Your task to perform on an android device: check out phone information Image 0: 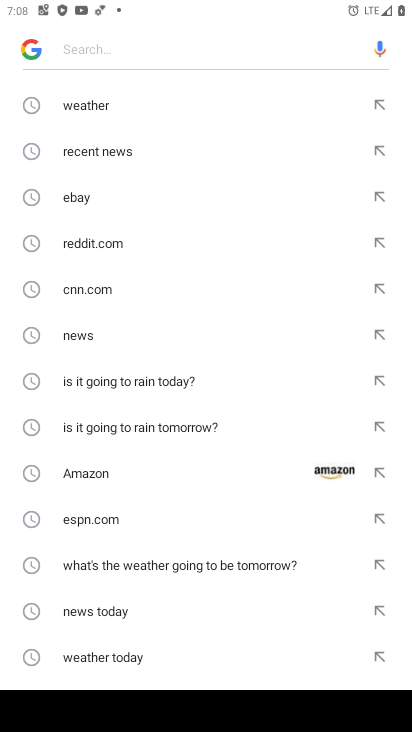
Step 0: press home button
Your task to perform on an android device: check out phone information Image 1: 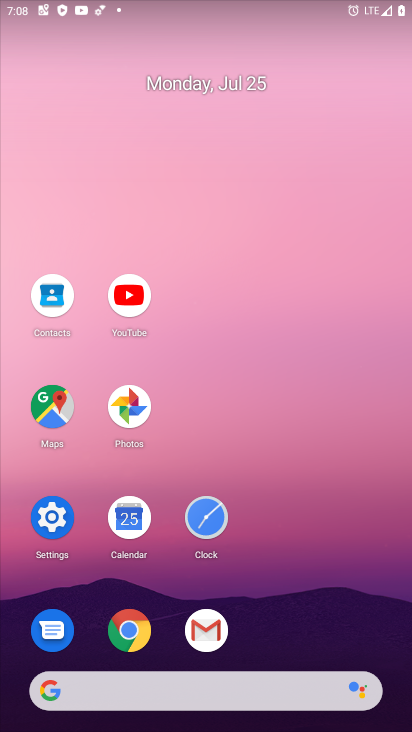
Step 1: click (44, 504)
Your task to perform on an android device: check out phone information Image 2: 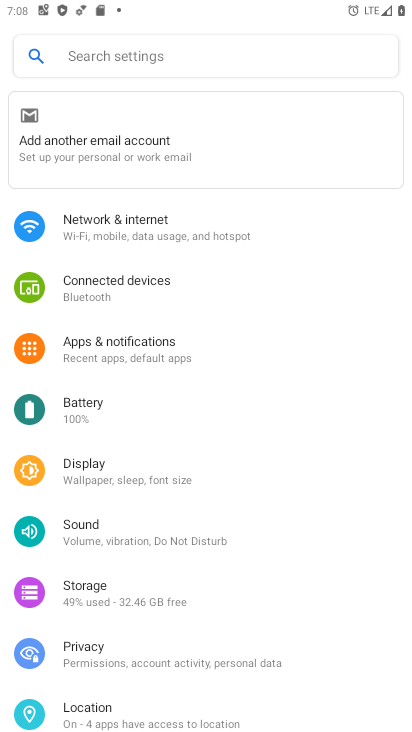
Step 2: drag from (342, 641) to (280, 241)
Your task to perform on an android device: check out phone information Image 3: 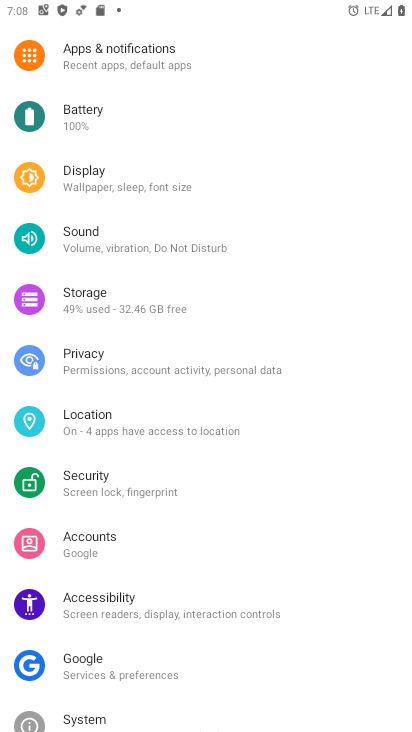
Step 3: drag from (260, 663) to (257, 279)
Your task to perform on an android device: check out phone information Image 4: 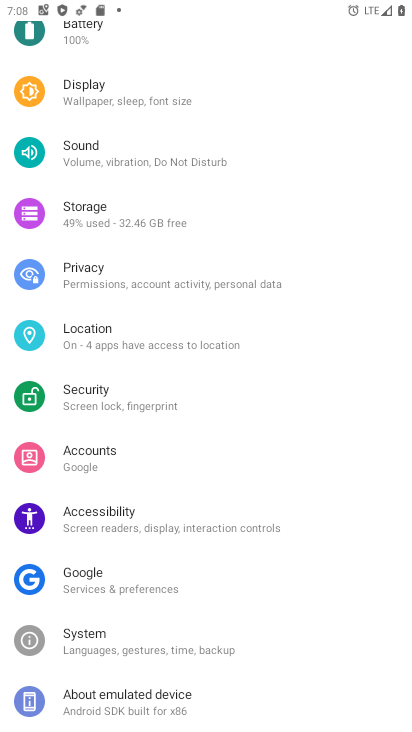
Step 4: click (81, 695)
Your task to perform on an android device: check out phone information Image 5: 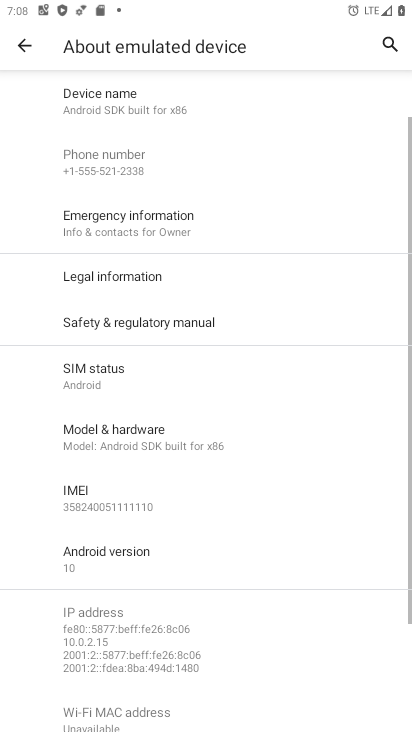
Step 5: task complete